Your task to perform on an android device: change the clock display to show seconds Image 0: 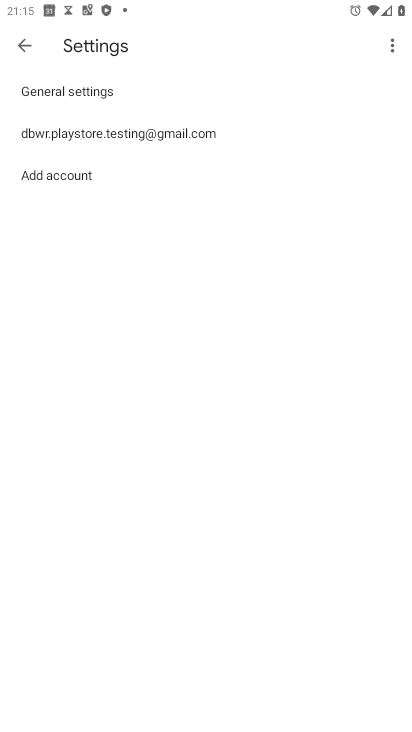
Step 0: drag from (180, 649) to (180, 567)
Your task to perform on an android device: change the clock display to show seconds Image 1: 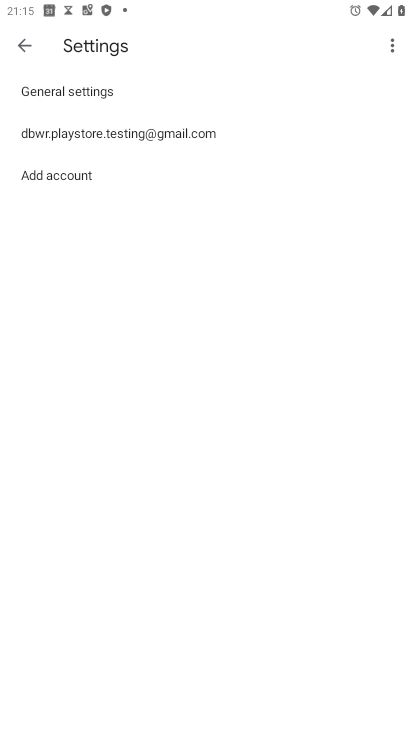
Step 1: press home button
Your task to perform on an android device: change the clock display to show seconds Image 2: 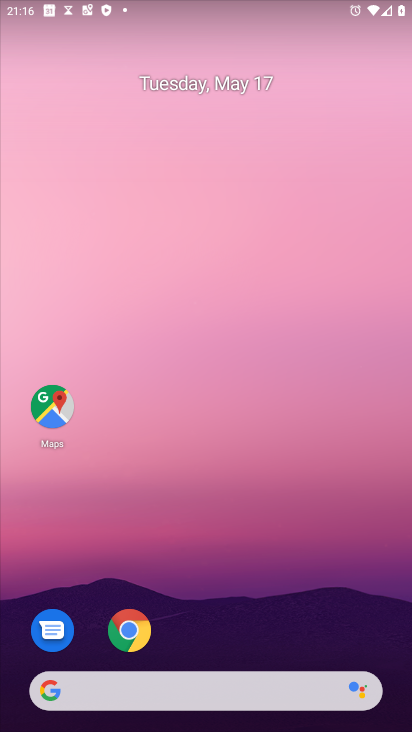
Step 2: drag from (182, 608) to (95, 174)
Your task to perform on an android device: change the clock display to show seconds Image 3: 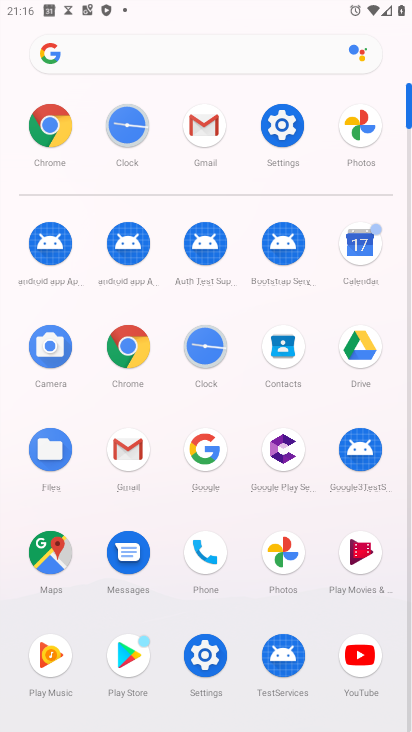
Step 3: click (210, 342)
Your task to perform on an android device: change the clock display to show seconds Image 4: 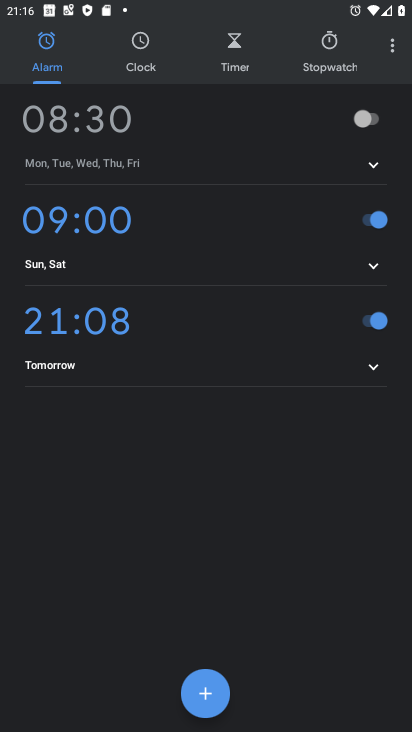
Step 4: click (396, 43)
Your task to perform on an android device: change the clock display to show seconds Image 5: 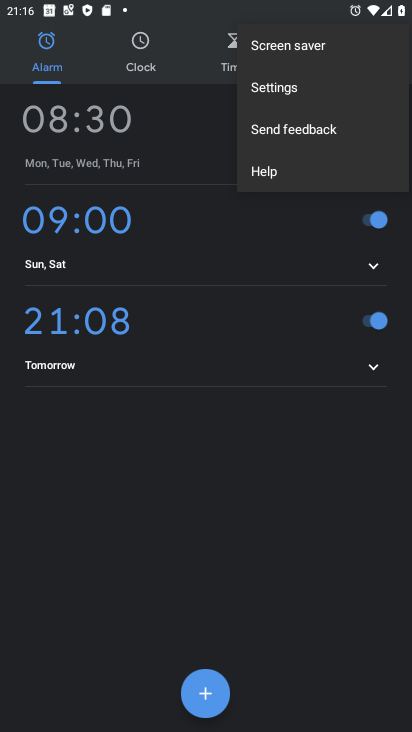
Step 5: click (282, 83)
Your task to perform on an android device: change the clock display to show seconds Image 6: 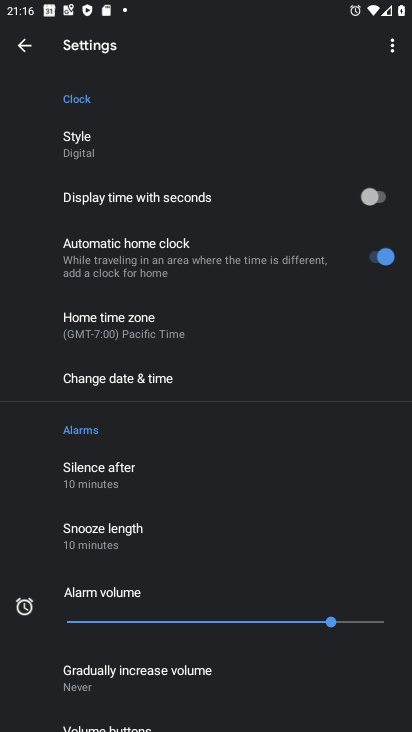
Step 6: click (377, 196)
Your task to perform on an android device: change the clock display to show seconds Image 7: 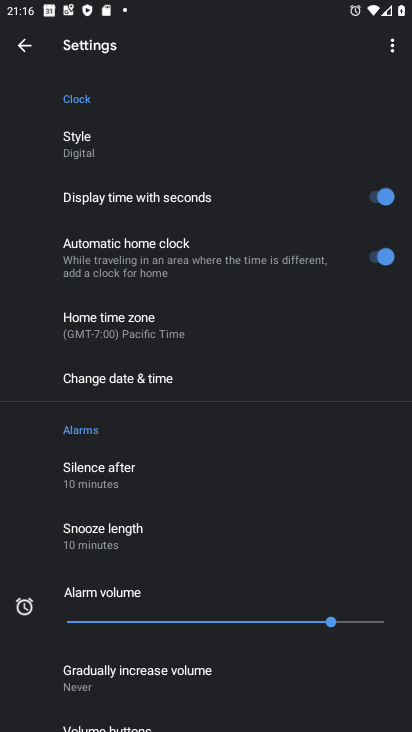
Step 7: task complete